Your task to perform on an android device: turn on improve location accuracy Image 0: 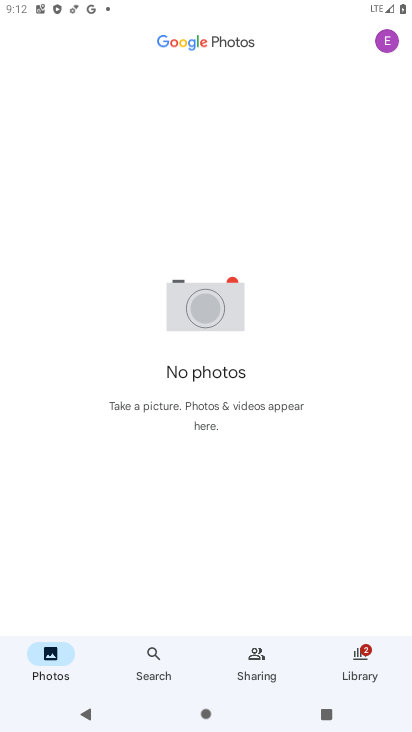
Step 0: press home button
Your task to perform on an android device: turn on improve location accuracy Image 1: 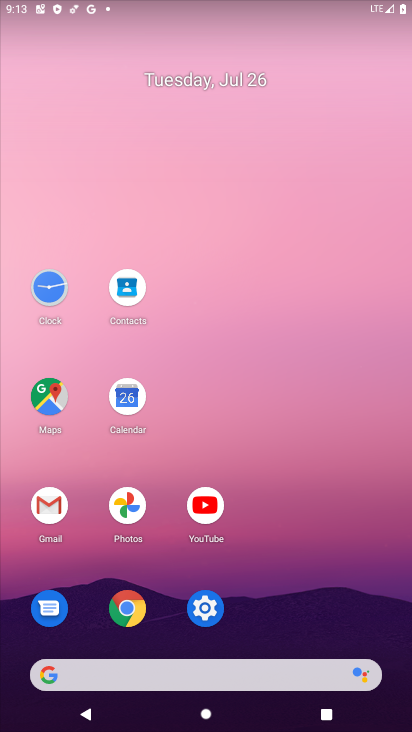
Step 1: click (198, 610)
Your task to perform on an android device: turn on improve location accuracy Image 2: 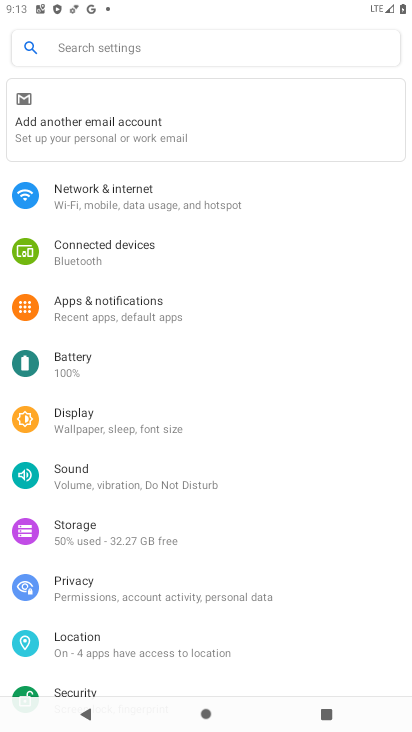
Step 2: click (79, 637)
Your task to perform on an android device: turn on improve location accuracy Image 3: 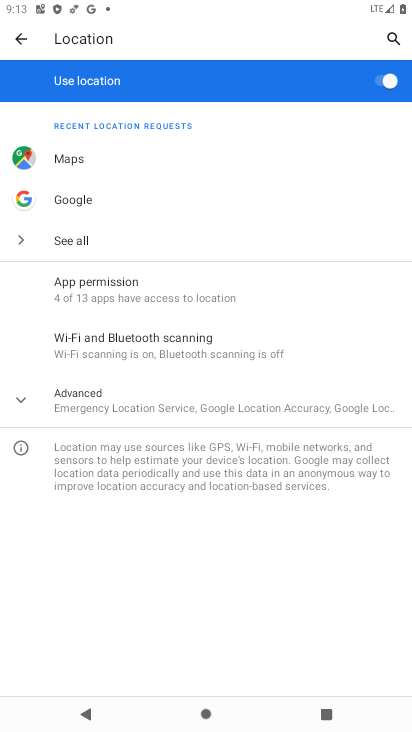
Step 3: click (31, 393)
Your task to perform on an android device: turn on improve location accuracy Image 4: 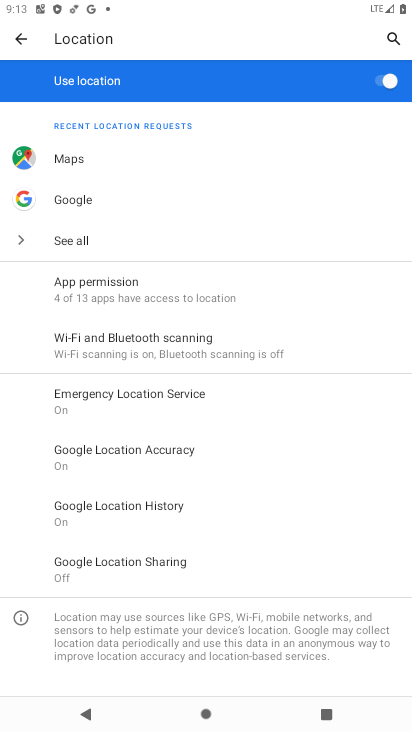
Step 4: click (145, 451)
Your task to perform on an android device: turn on improve location accuracy Image 5: 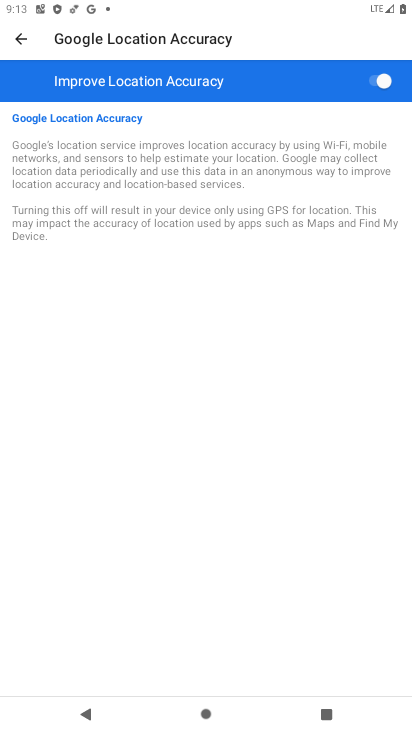
Step 5: task complete